Your task to perform on an android device: Open Google Maps Image 0: 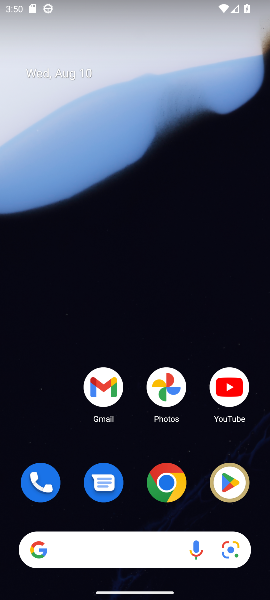
Step 0: drag from (182, 455) to (163, 76)
Your task to perform on an android device: Open Google Maps Image 1: 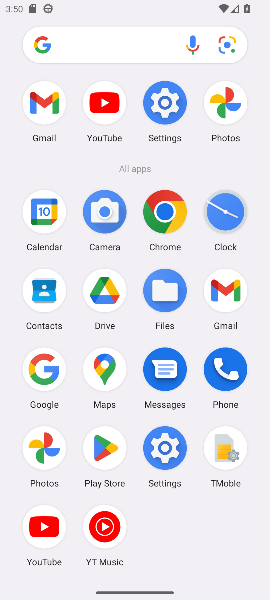
Step 1: click (45, 368)
Your task to perform on an android device: Open Google Maps Image 2: 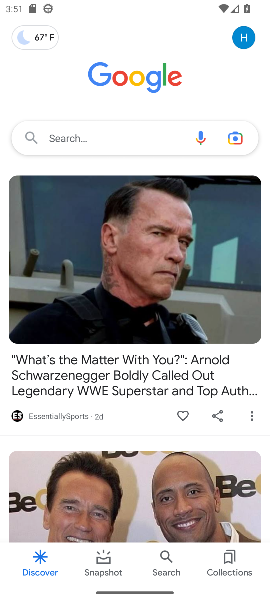
Step 2: task complete